Your task to perform on an android device: change the clock display to digital Image 0: 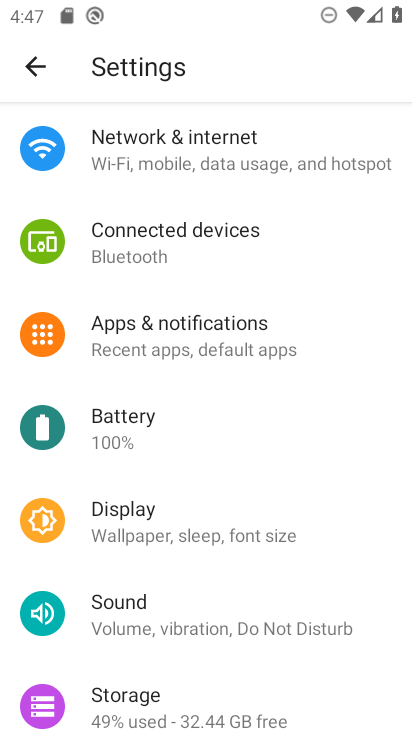
Step 0: press home button
Your task to perform on an android device: change the clock display to digital Image 1: 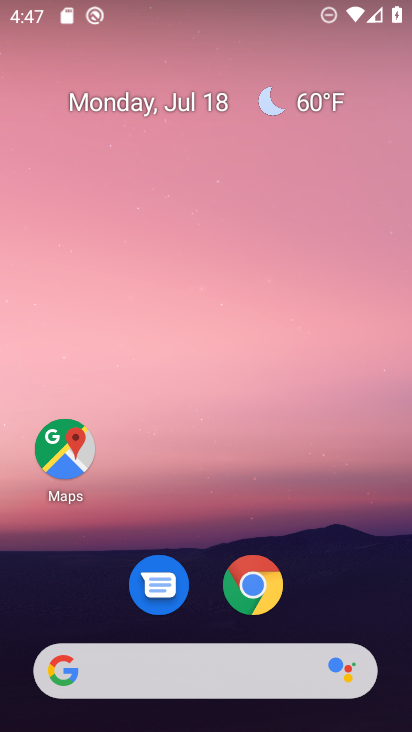
Step 1: drag from (319, 587) to (366, 43)
Your task to perform on an android device: change the clock display to digital Image 2: 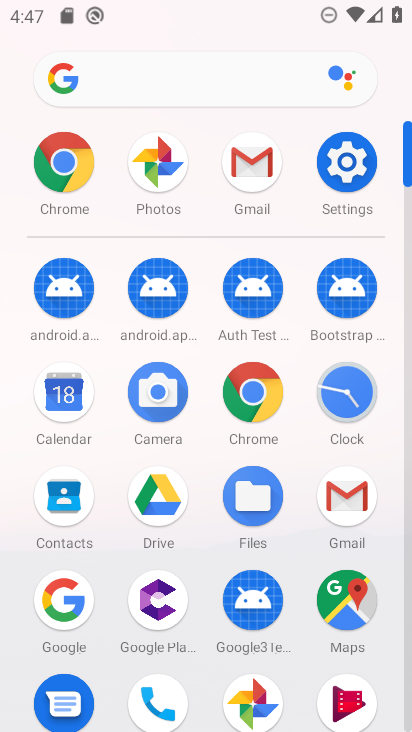
Step 2: click (349, 387)
Your task to perform on an android device: change the clock display to digital Image 3: 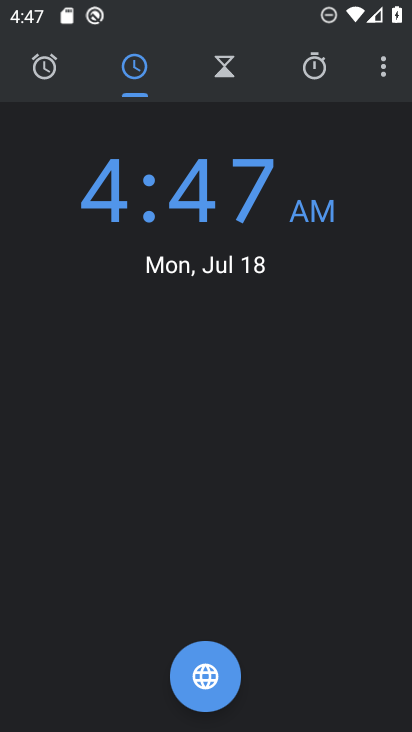
Step 3: task complete